Your task to perform on an android device: open a new tab in the chrome app Image 0: 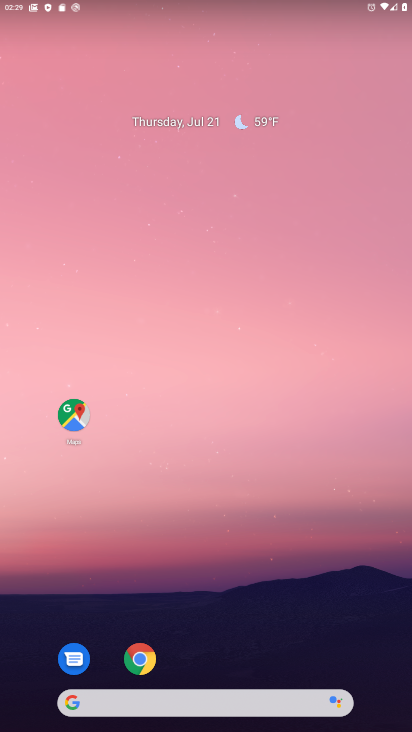
Step 0: drag from (279, 637) to (213, 117)
Your task to perform on an android device: open a new tab in the chrome app Image 1: 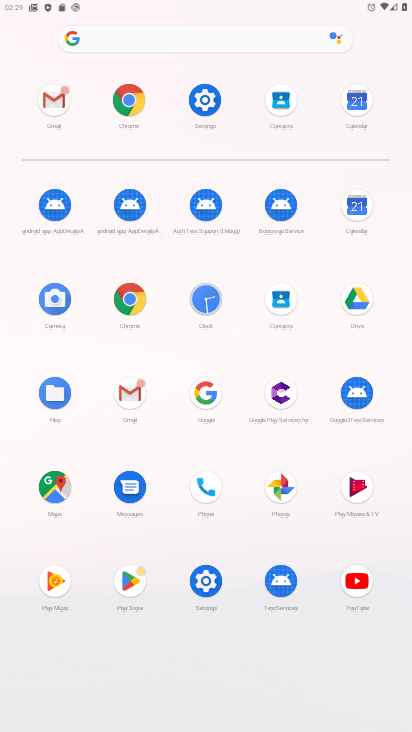
Step 1: click (132, 95)
Your task to perform on an android device: open a new tab in the chrome app Image 2: 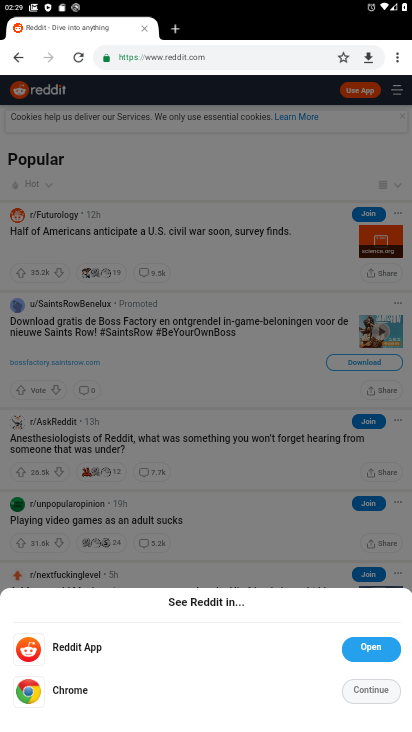
Step 2: task complete